Your task to perform on an android device: open app "Messenger Lite" (install if not already installed), go to login, and select forgot password Image 0: 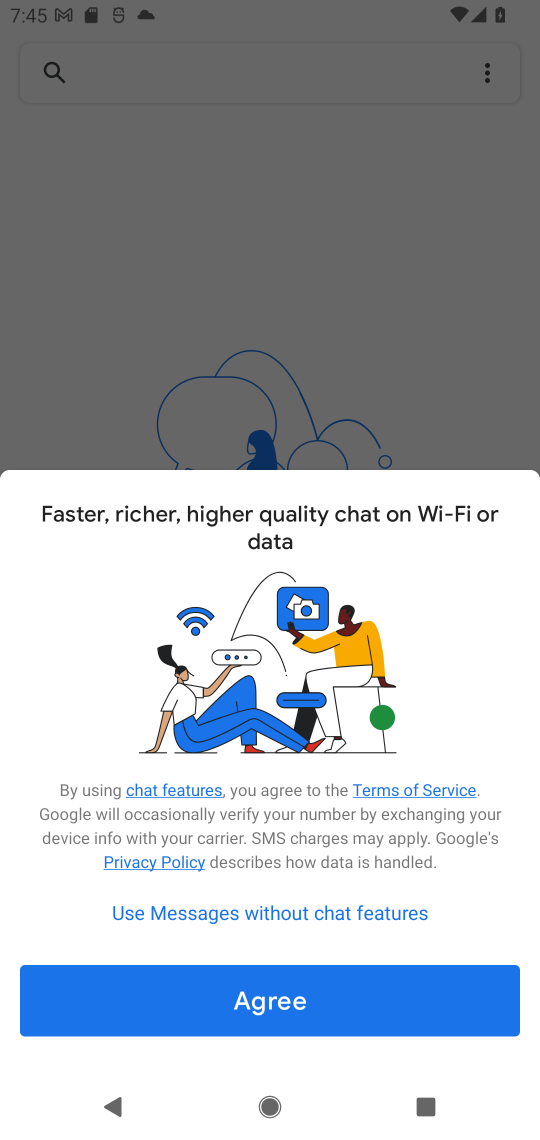
Step 0: press home button
Your task to perform on an android device: open app "Messenger Lite" (install if not already installed), go to login, and select forgot password Image 1: 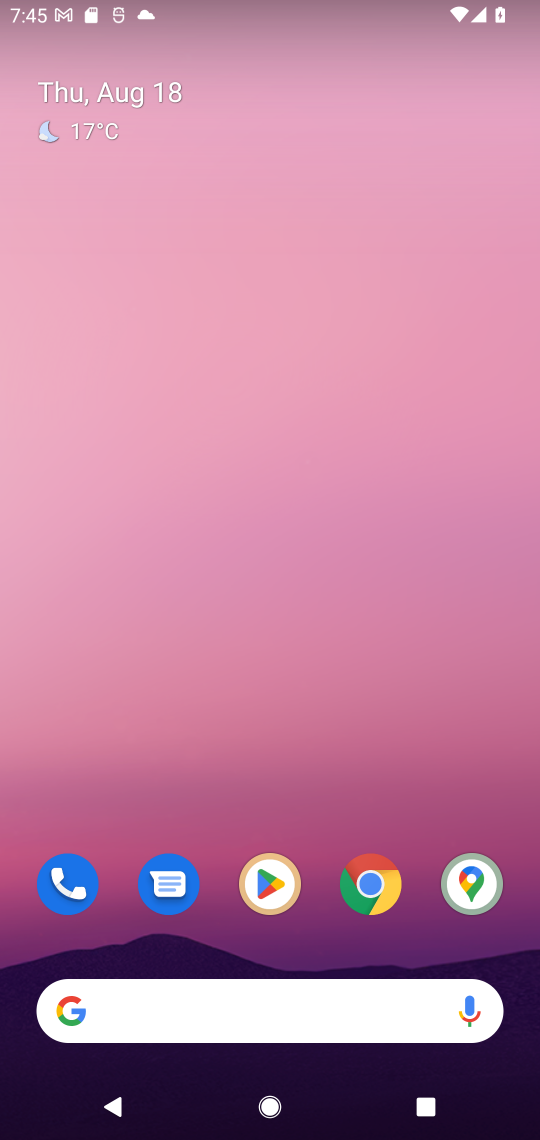
Step 1: drag from (227, 1020) to (328, 37)
Your task to perform on an android device: open app "Messenger Lite" (install if not already installed), go to login, and select forgot password Image 2: 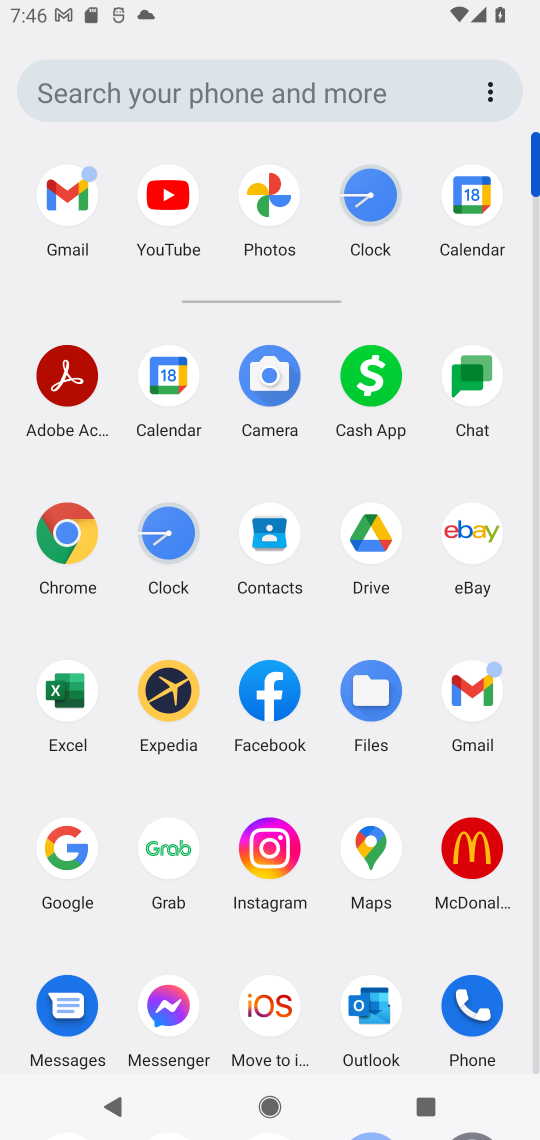
Step 2: drag from (328, 649) to (335, 176)
Your task to perform on an android device: open app "Messenger Lite" (install if not already installed), go to login, and select forgot password Image 3: 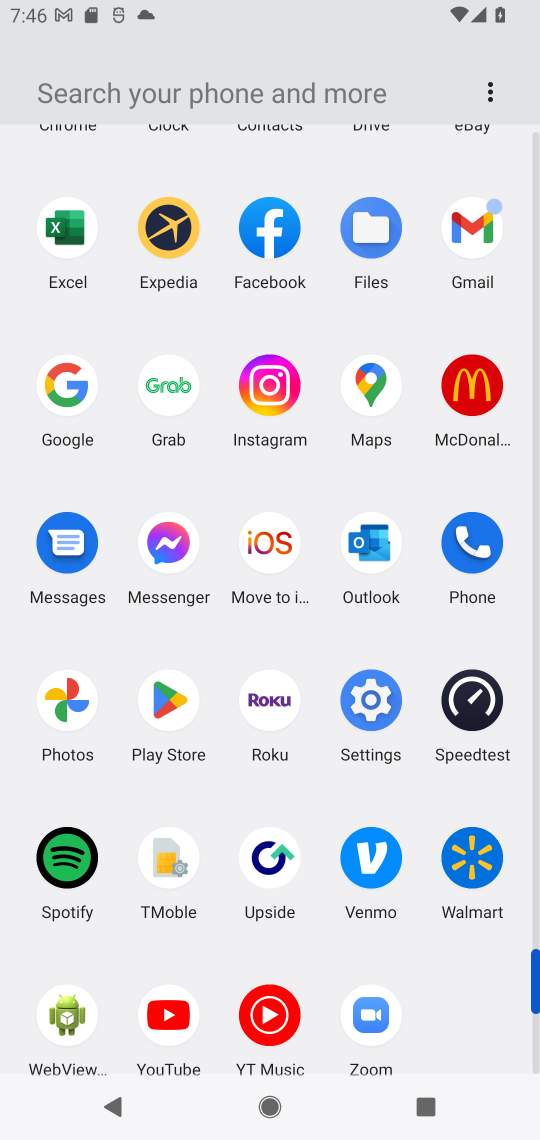
Step 3: click (172, 702)
Your task to perform on an android device: open app "Messenger Lite" (install if not already installed), go to login, and select forgot password Image 4: 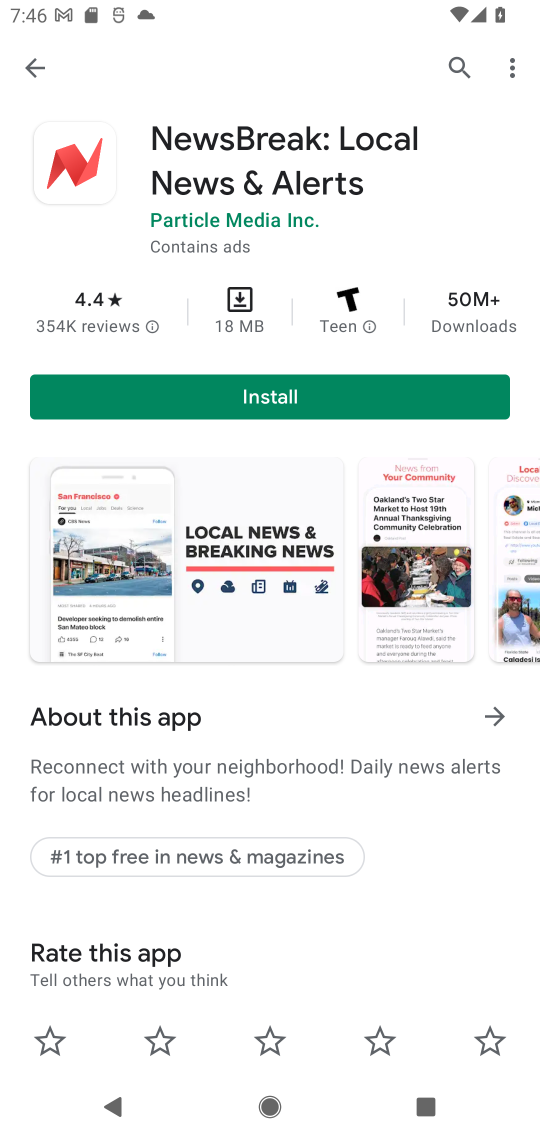
Step 4: press back button
Your task to perform on an android device: open app "Messenger Lite" (install if not already installed), go to login, and select forgot password Image 5: 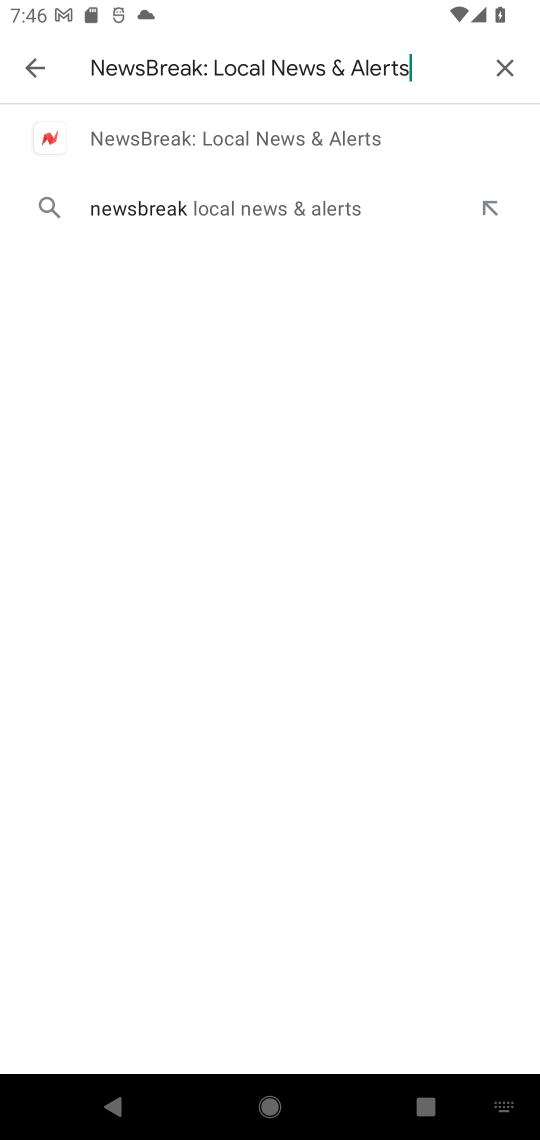
Step 5: press back button
Your task to perform on an android device: open app "Messenger Lite" (install if not already installed), go to login, and select forgot password Image 6: 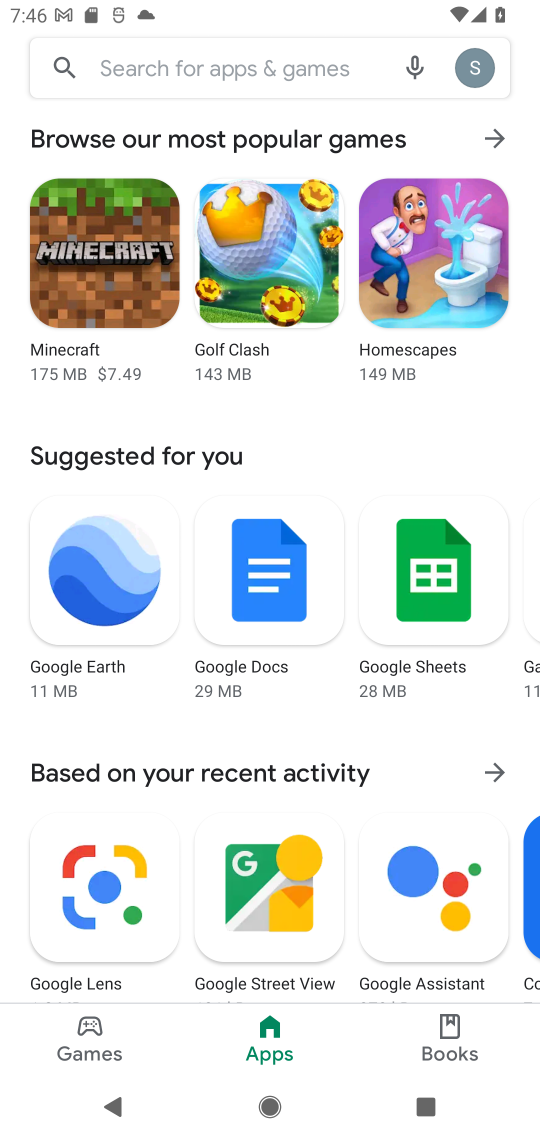
Step 6: click (262, 72)
Your task to perform on an android device: open app "Messenger Lite" (install if not already installed), go to login, and select forgot password Image 7: 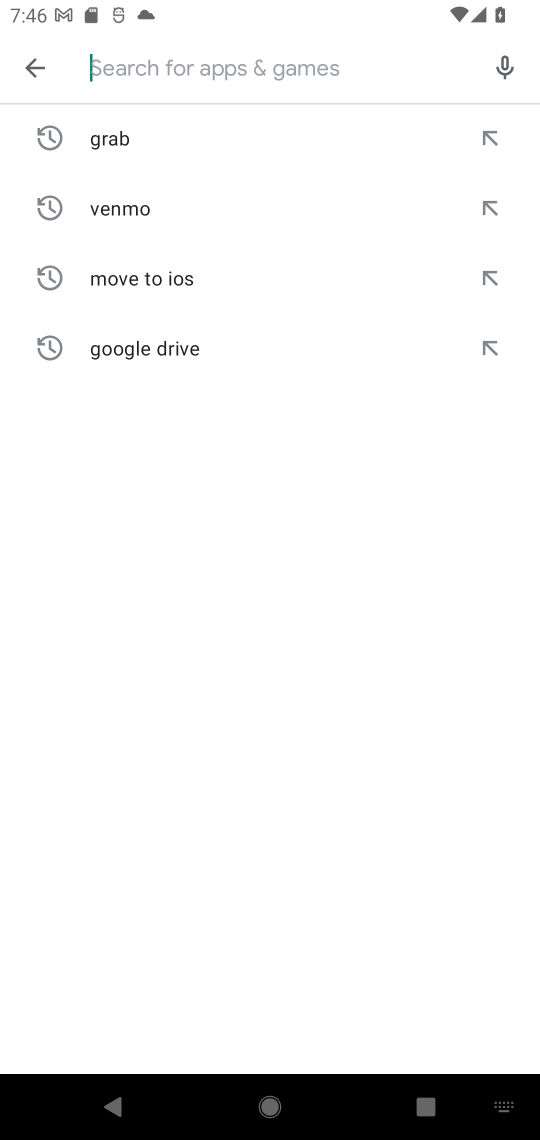
Step 7: type "Messenger Lite"
Your task to perform on an android device: open app "Messenger Lite" (install if not already installed), go to login, and select forgot password Image 8: 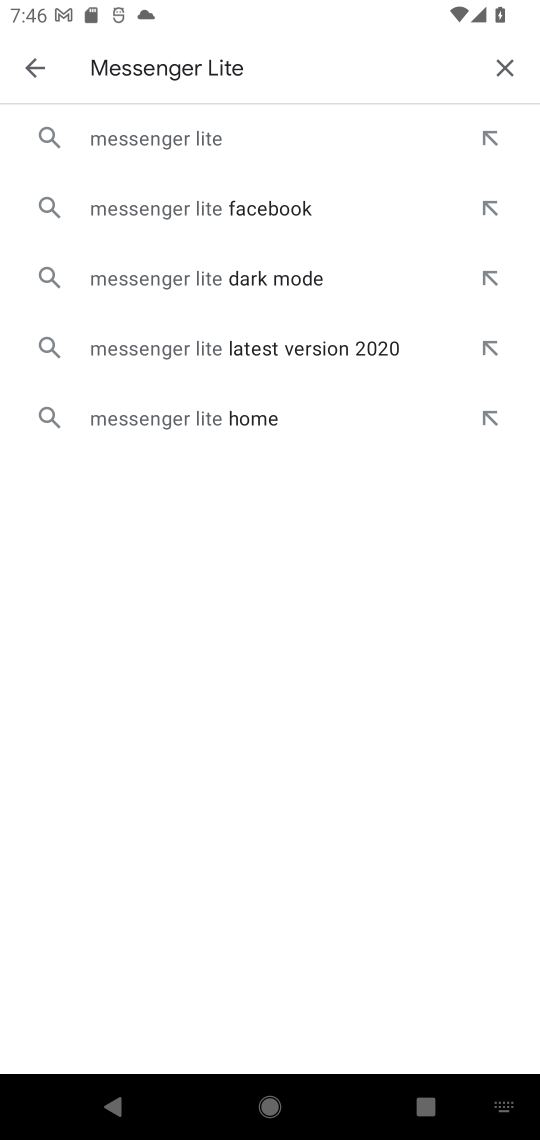
Step 8: click (209, 142)
Your task to perform on an android device: open app "Messenger Lite" (install if not already installed), go to login, and select forgot password Image 9: 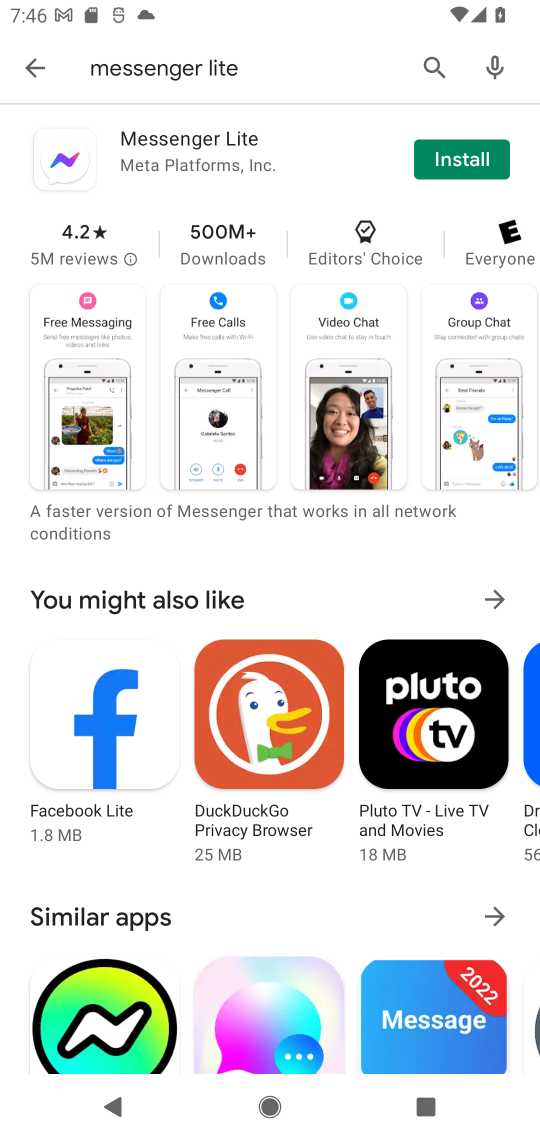
Step 9: click (471, 168)
Your task to perform on an android device: open app "Messenger Lite" (install if not already installed), go to login, and select forgot password Image 10: 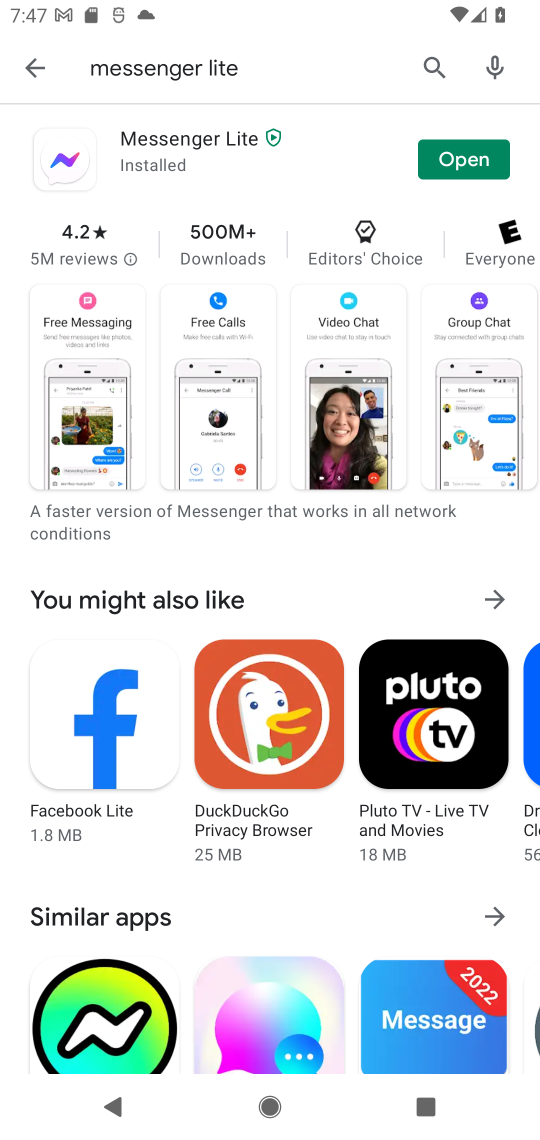
Step 10: click (471, 168)
Your task to perform on an android device: open app "Messenger Lite" (install if not already installed), go to login, and select forgot password Image 11: 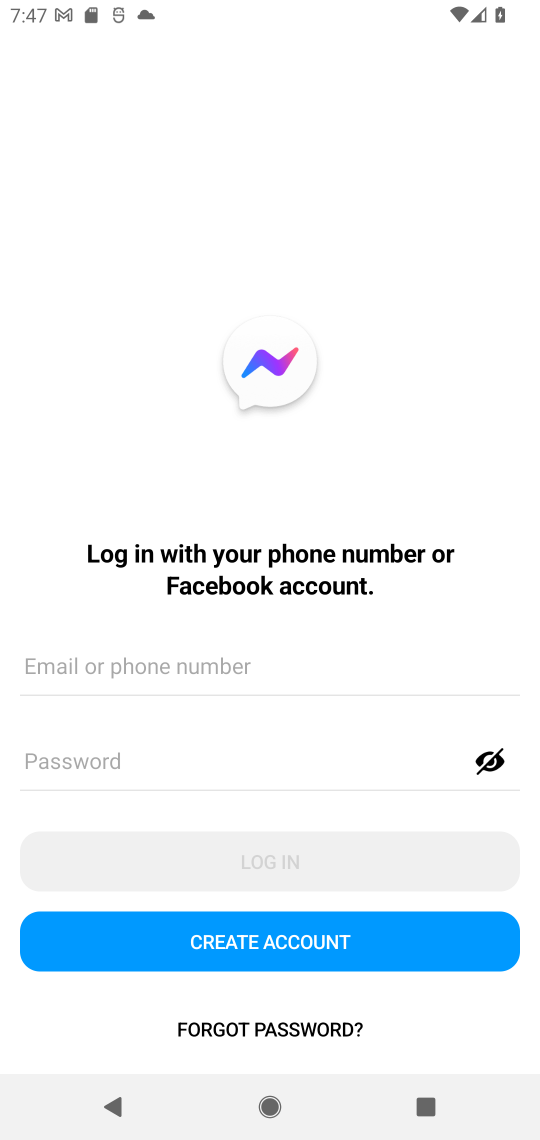
Step 11: task complete